Your task to perform on an android device: Do I have any events tomorrow? Image 0: 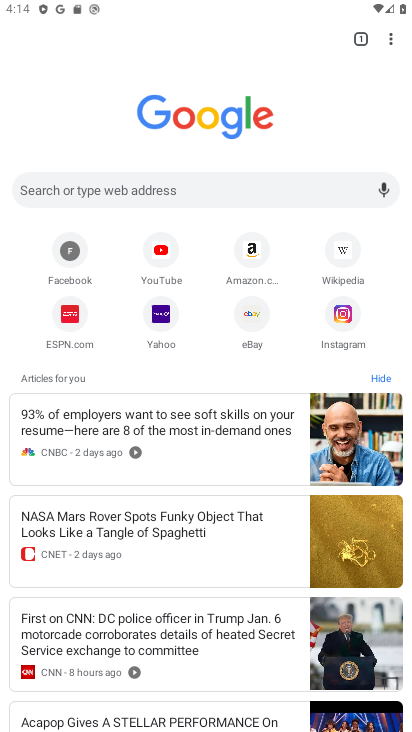
Step 0: click (111, 285)
Your task to perform on an android device: Do I have any events tomorrow? Image 1: 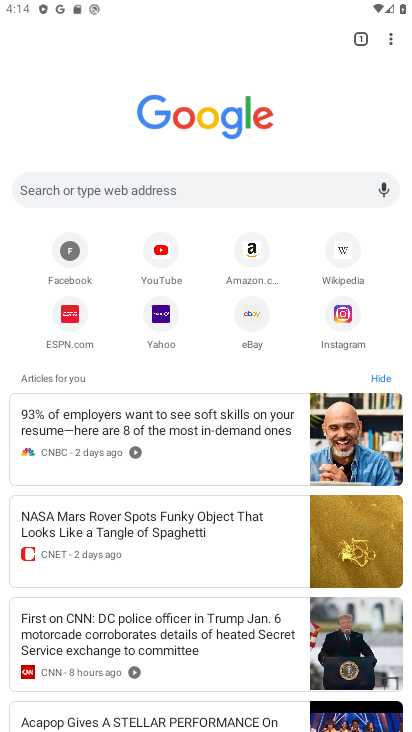
Step 1: press back button
Your task to perform on an android device: Do I have any events tomorrow? Image 2: 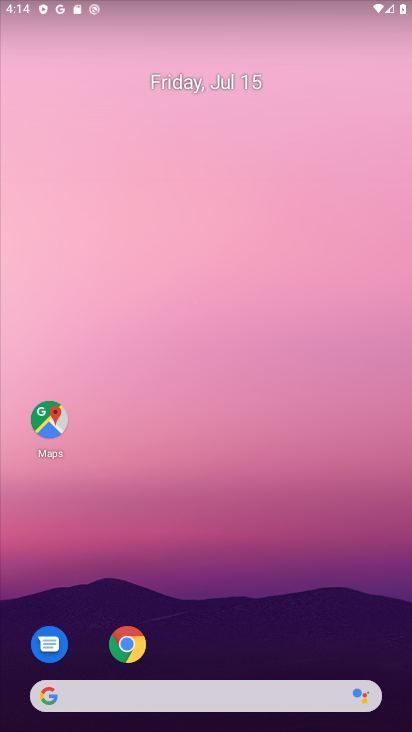
Step 2: drag from (214, 673) to (177, 326)
Your task to perform on an android device: Do I have any events tomorrow? Image 3: 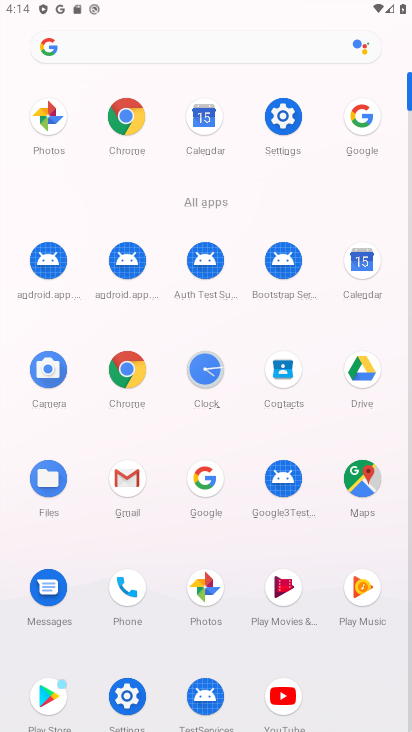
Step 3: click (213, 130)
Your task to perform on an android device: Do I have any events tomorrow? Image 4: 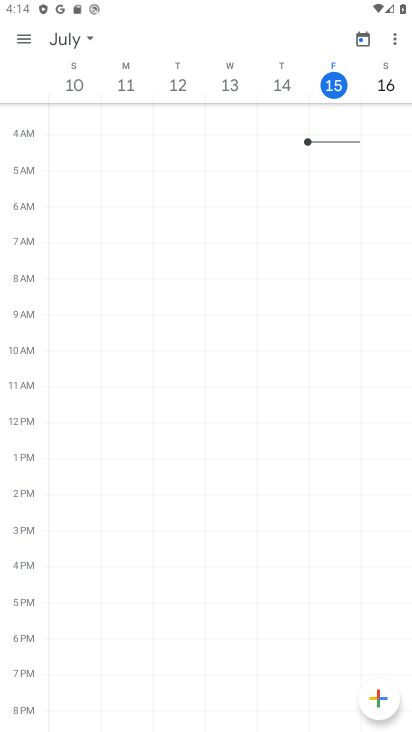
Step 4: task complete